Your task to perform on an android device: turn off priority inbox in the gmail app Image 0: 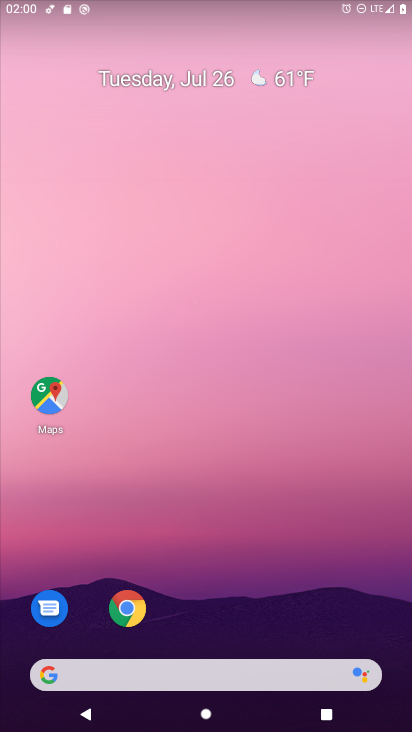
Step 0: drag from (32, 660) to (228, 156)
Your task to perform on an android device: turn off priority inbox in the gmail app Image 1: 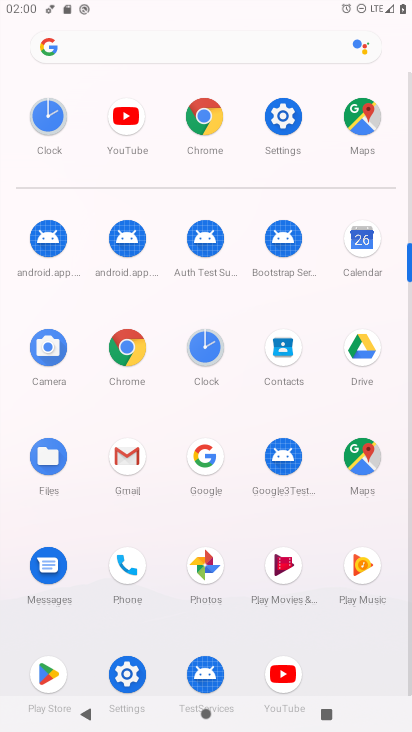
Step 1: click (129, 447)
Your task to perform on an android device: turn off priority inbox in the gmail app Image 2: 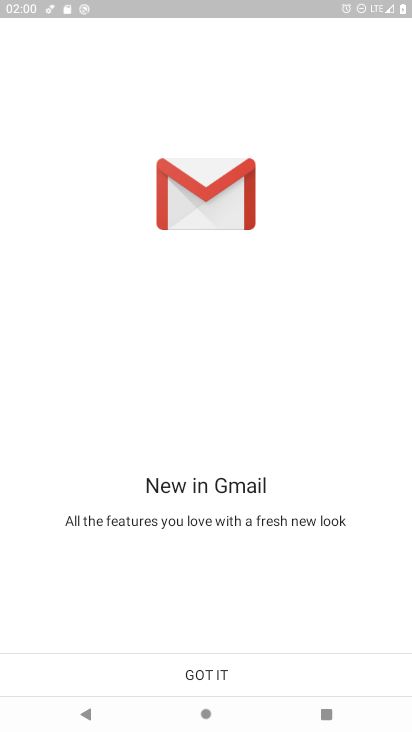
Step 2: click (189, 679)
Your task to perform on an android device: turn off priority inbox in the gmail app Image 3: 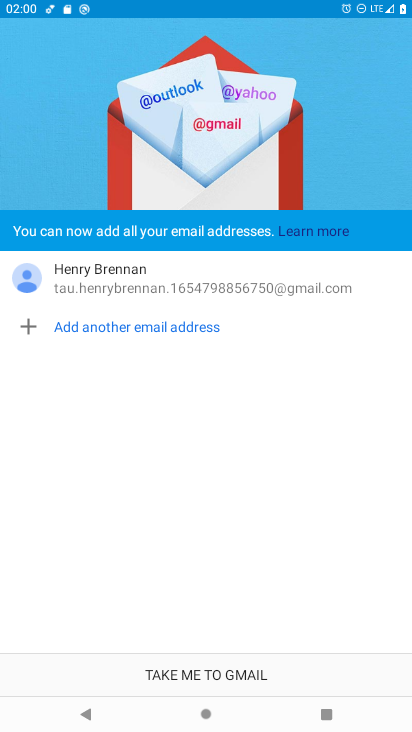
Step 3: click (189, 667)
Your task to perform on an android device: turn off priority inbox in the gmail app Image 4: 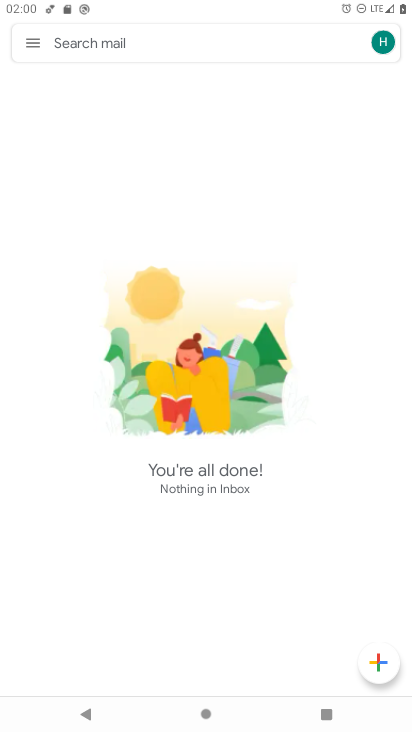
Step 4: click (35, 44)
Your task to perform on an android device: turn off priority inbox in the gmail app Image 5: 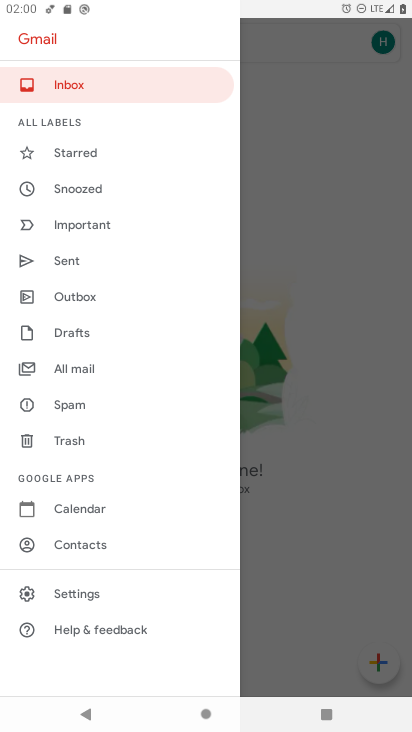
Step 5: click (81, 595)
Your task to perform on an android device: turn off priority inbox in the gmail app Image 6: 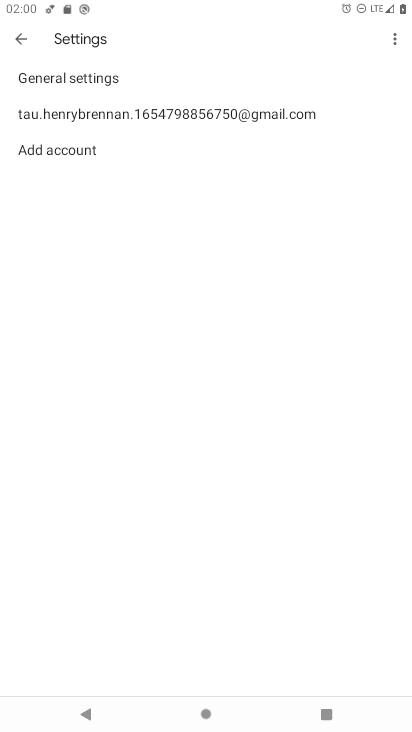
Step 6: click (141, 121)
Your task to perform on an android device: turn off priority inbox in the gmail app Image 7: 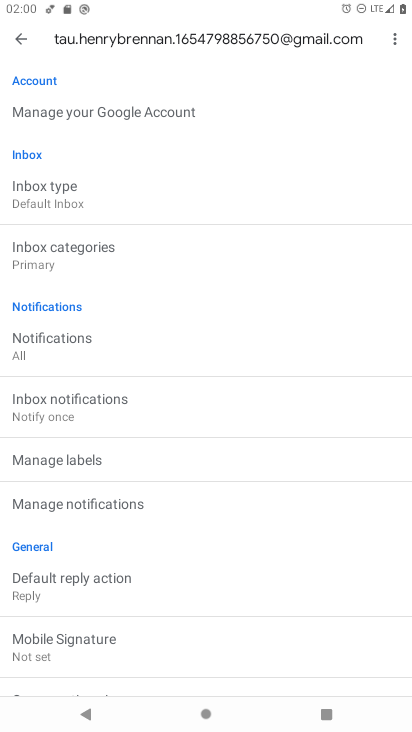
Step 7: click (117, 183)
Your task to perform on an android device: turn off priority inbox in the gmail app Image 8: 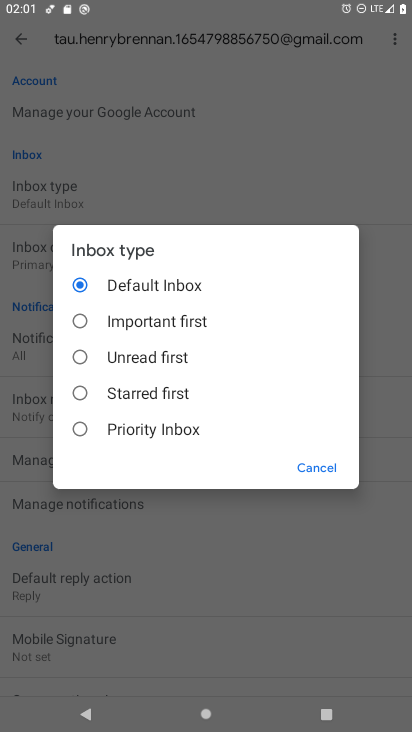
Step 8: click (165, 329)
Your task to perform on an android device: turn off priority inbox in the gmail app Image 9: 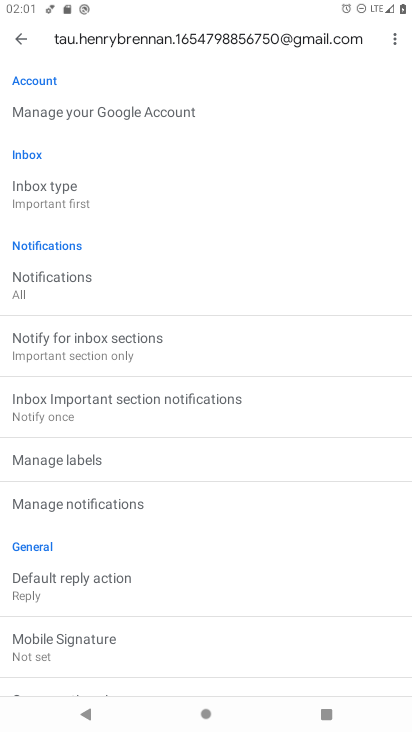
Step 9: task complete